Your task to perform on an android device: Open my contact list Image 0: 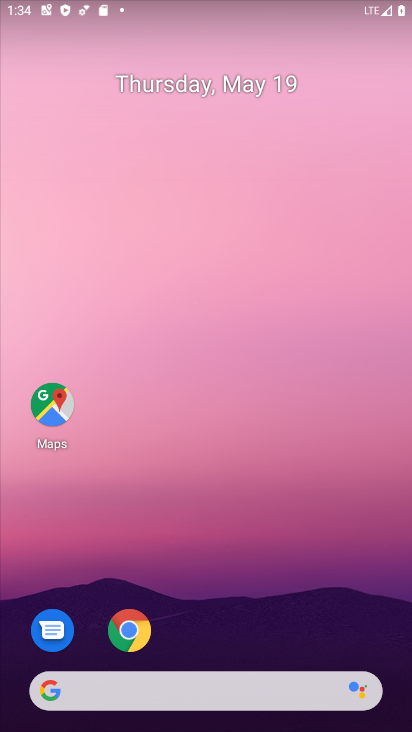
Step 0: drag from (193, 657) to (152, 122)
Your task to perform on an android device: Open my contact list Image 1: 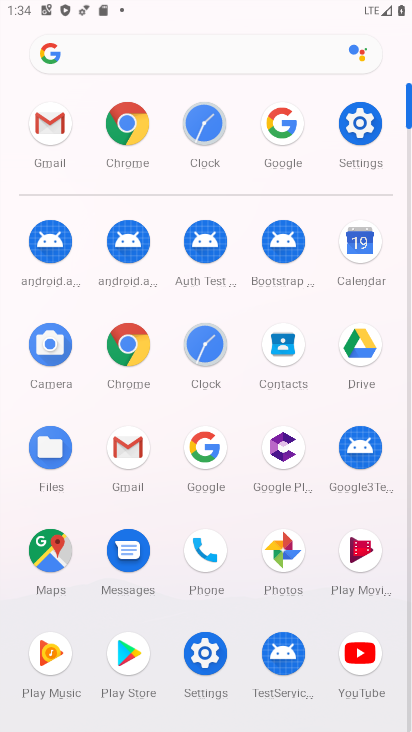
Step 1: click (201, 547)
Your task to perform on an android device: Open my contact list Image 2: 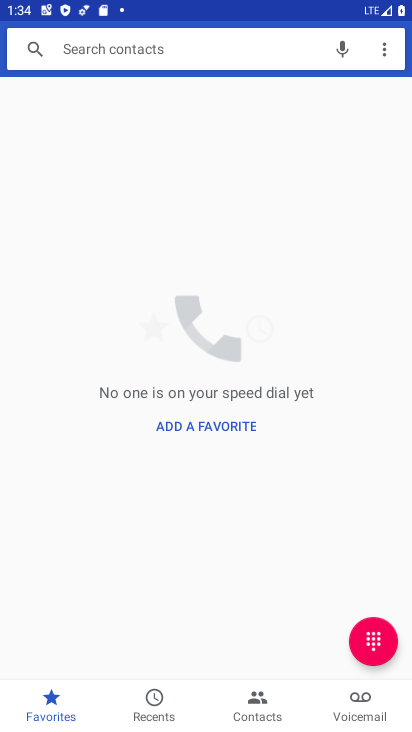
Step 2: click (246, 687)
Your task to perform on an android device: Open my contact list Image 3: 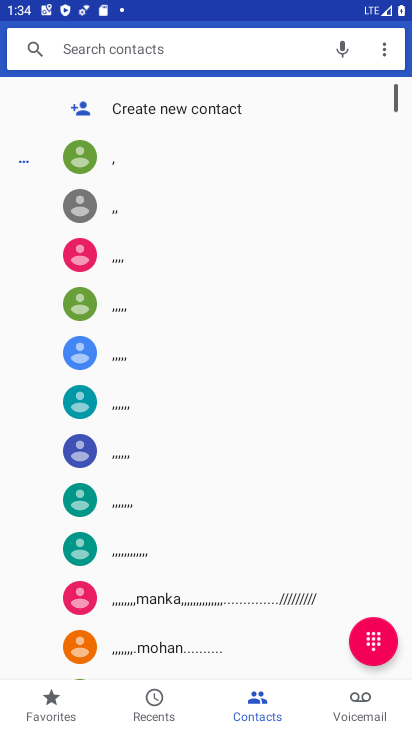
Step 3: task complete